Your task to perform on an android device: toggle notification dots Image 0: 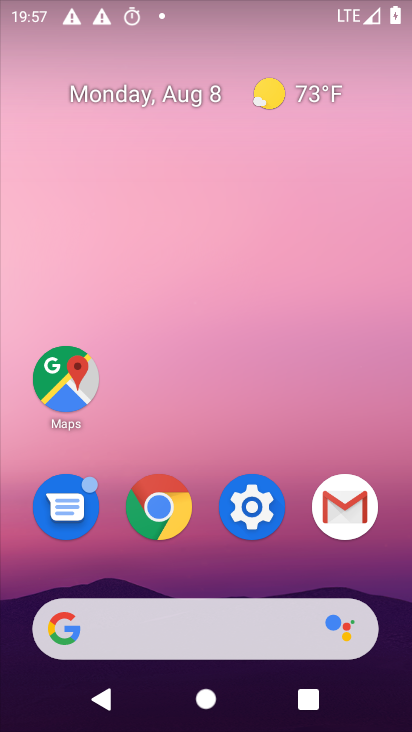
Step 0: drag from (256, 665) to (189, 240)
Your task to perform on an android device: toggle notification dots Image 1: 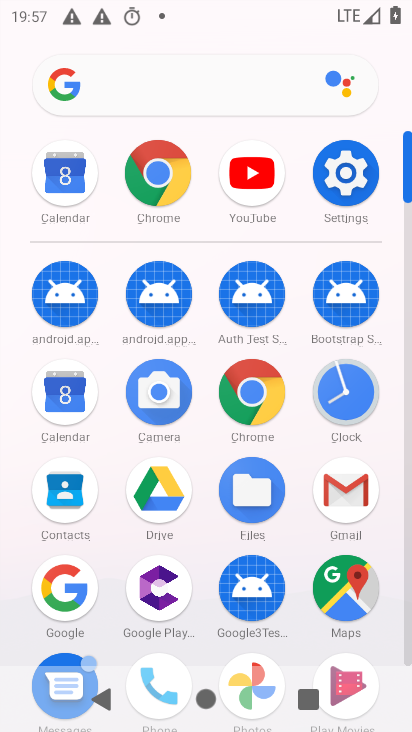
Step 1: click (354, 167)
Your task to perform on an android device: toggle notification dots Image 2: 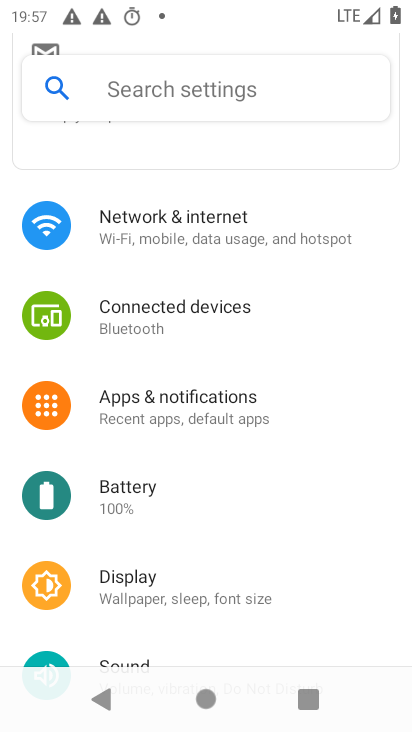
Step 2: click (159, 82)
Your task to perform on an android device: toggle notification dots Image 3: 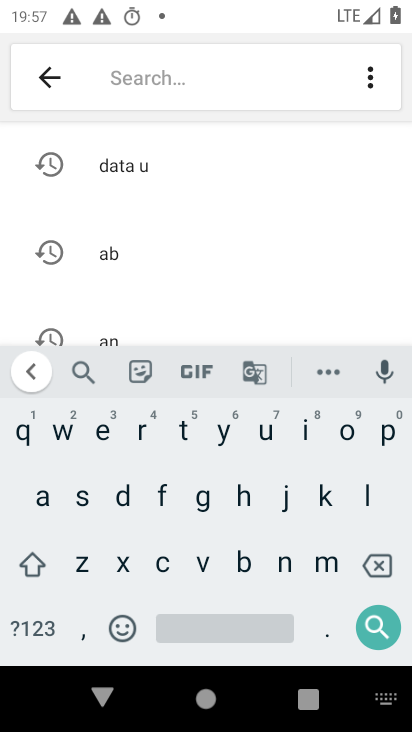
Step 3: click (277, 559)
Your task to perform on an android device: toggle notification dots Image 4: 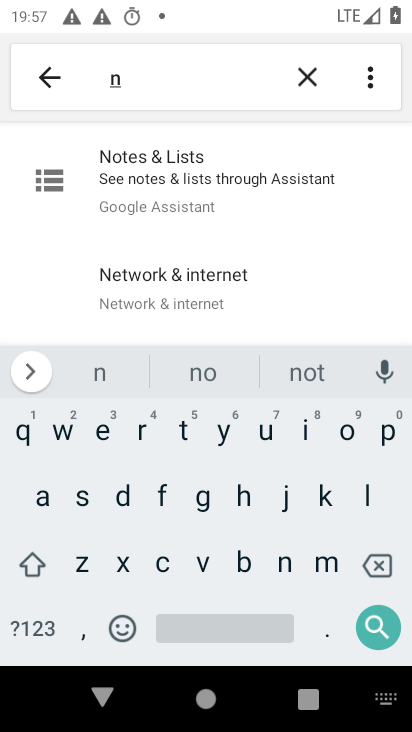
Step 4: click (337, 434)
Your task to perform on an android device: toggle notification dots Image 5: 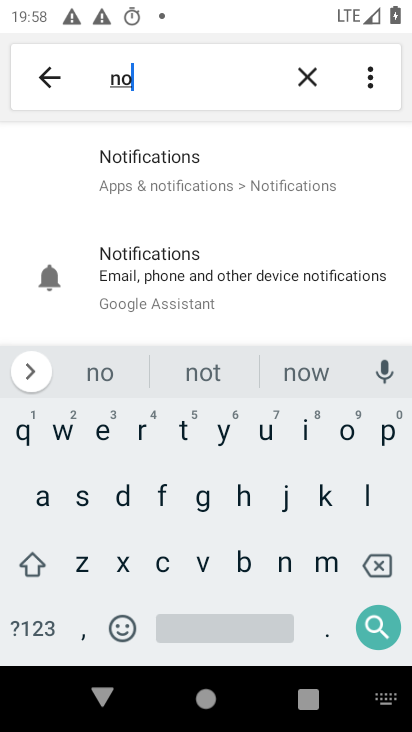
Step 5: click (211, 180)
Your task to perform on an android device: toggle notification dots Image 6: 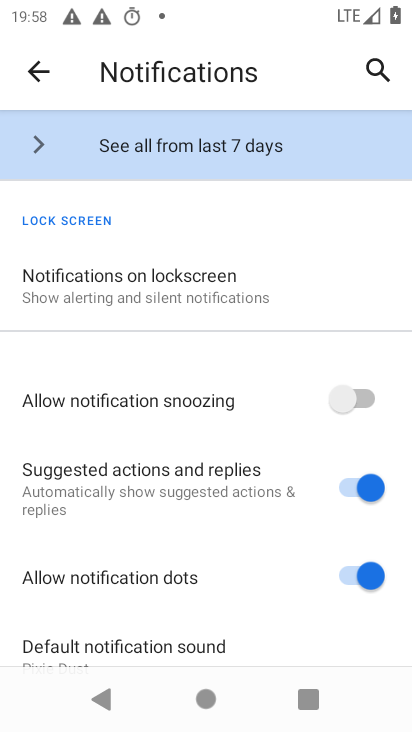
Step 6: click (127, 287)
Your task to perform on an android device: toggle notification dots Image 7: 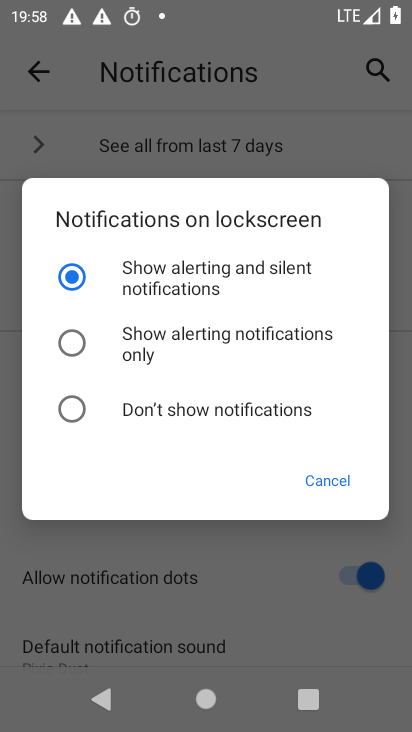
Step 7: task complete